Your task to perform on an android device: Go to Maps Image 0: 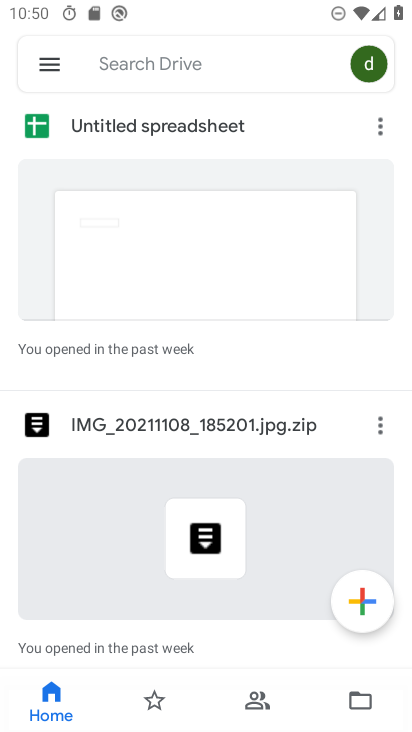
Step 0: press home button
Your task to perform on an android device: Go to Maps Image 1: 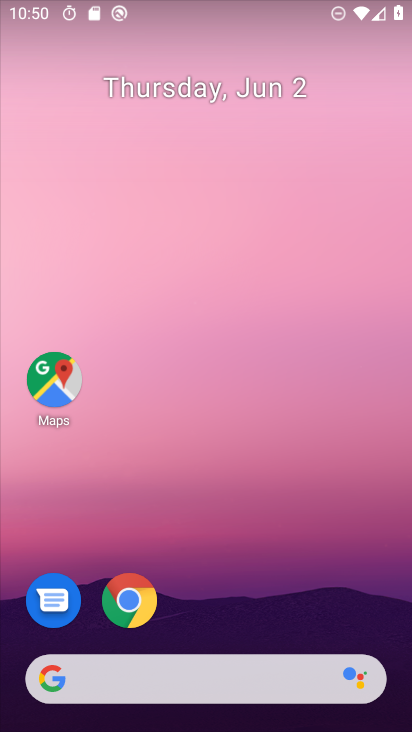
Step 1: click (61, 379)
Your task to perform on an android device: Go to Maps Image 2: 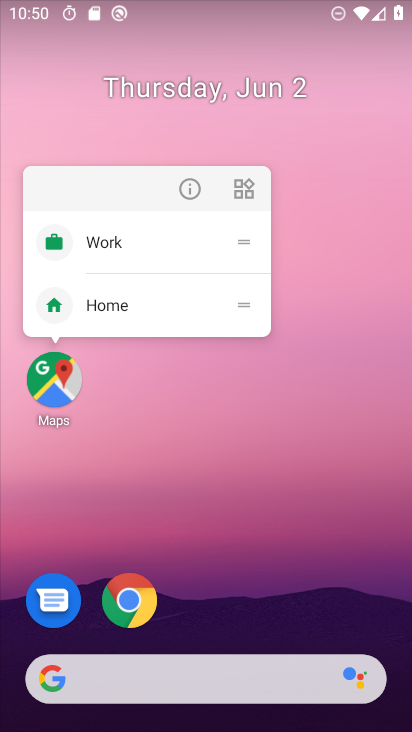
Step 2: click (65, 381)
Your task to perform on an android device: Go to Maps Image 3: 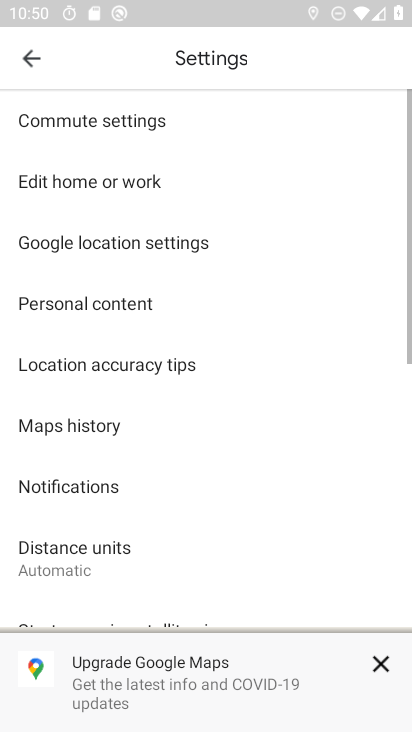
Step 3: task complete